Your task to perform on an android device: Open Google Image 0: 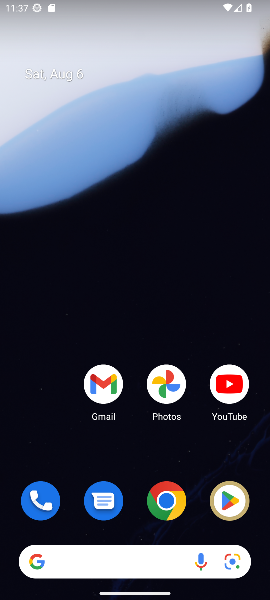
Step 0: click (101, 567)
Your task to perform on an android device: Open Google Image 1: 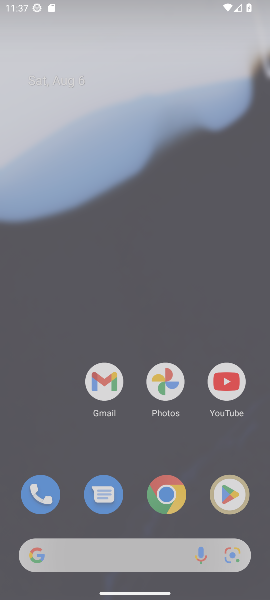
Step 1: click (124, 554)
Your task to perform on an android device: Open Google Image 2: 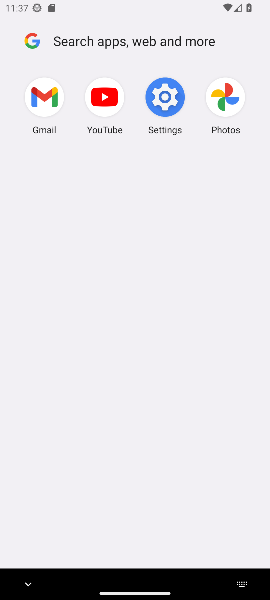
Step 2: task complete